Your task to perform on an android device: set default search engine in the chrome app Image 0: 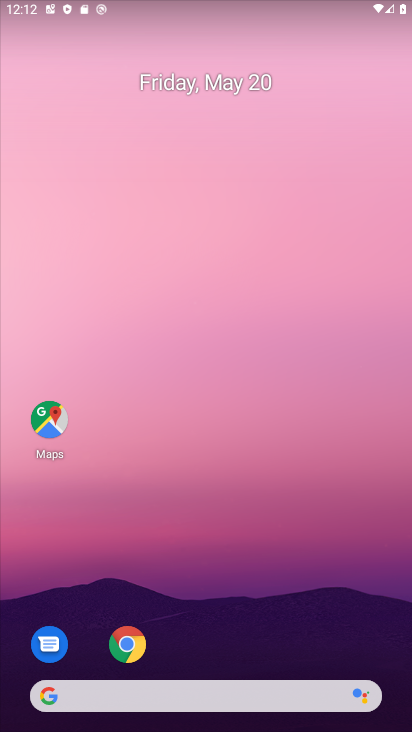
Step 0: click (137, 646)
Your task to perform on an android device: set default search engine in the chrome app Image 1: 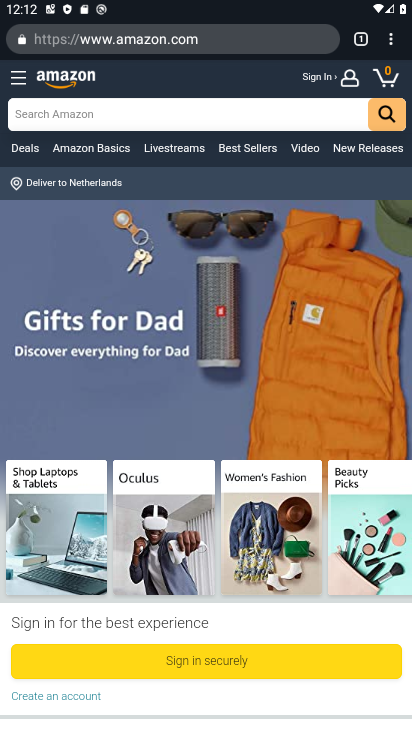
Step 1: click (394, 45)
Your task to perform on an android device: set default search engine in the chrome app Image 2: 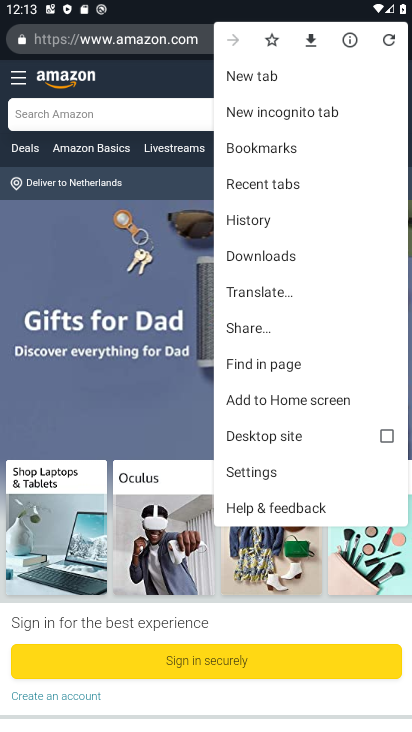
Step 2: click (261, 475)
Your task to perform on an android device: set default search engine in the chrome app Image 3: 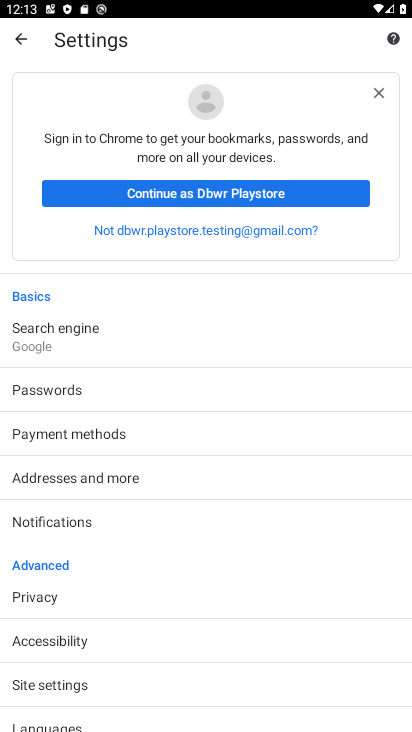
Step 3: click (50, 334)
Your task to perform on an android device: set default search engine in the chrome app Image 4: 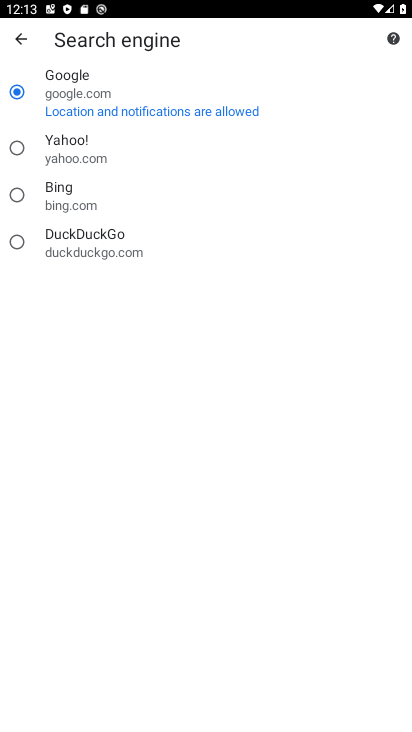
Step 4: click (16, 151)
Your task to perform on an android device: set default search engine in the chrome app Image 5: 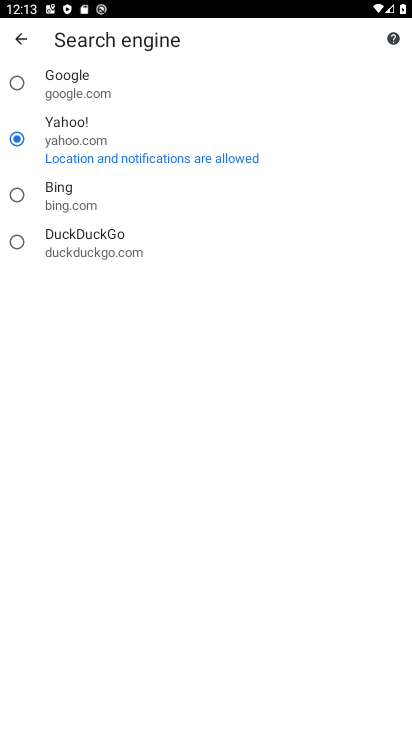
Step 5: task complete